Your task to perform on an android device: toggle notifications settings in the gmail app Image 0: 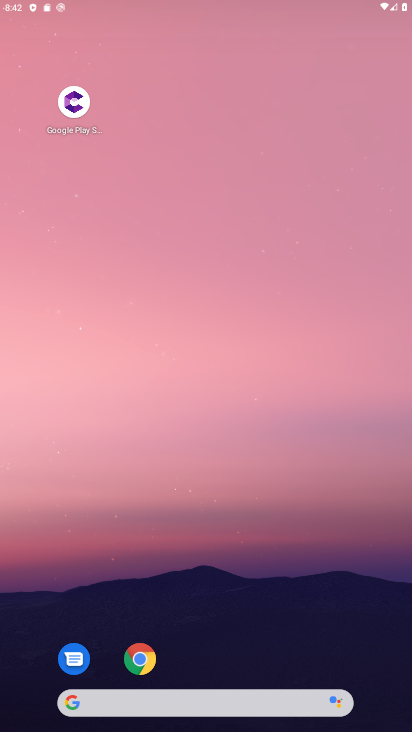
Step 0: drag from (244, 664) to (245, 199)
Your task to perform on an android device: toggle notifications settings in the gmail app Image 1: 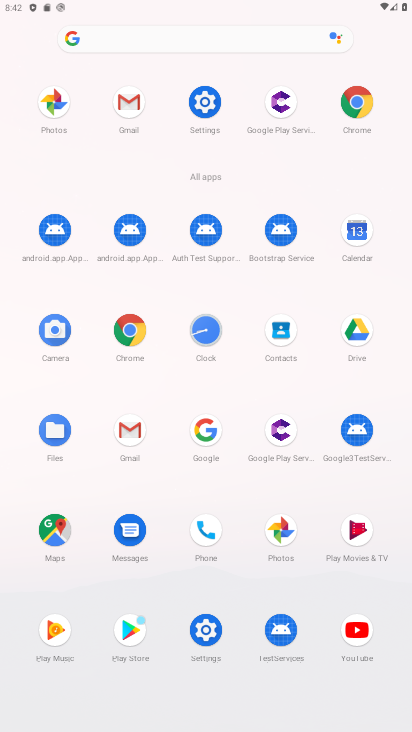
Step 1: click (127, 100)
Your task to perform on an android device: toggle notifications settings in the gmail app Image 2: 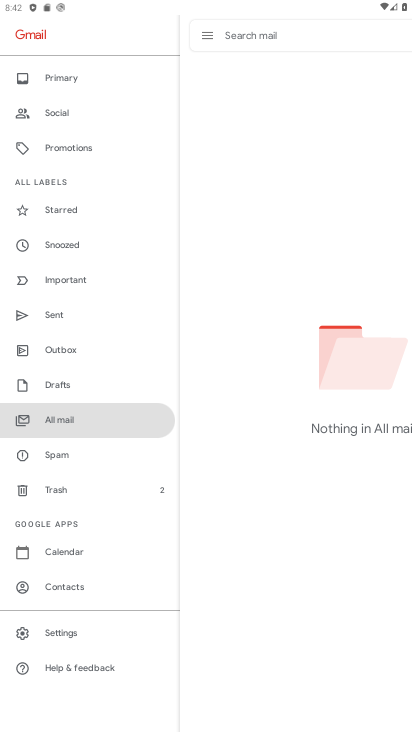
Step 2: click (61, 624)
Your task to perform on an android device: toggle notifications settings in the gmail app Image 3: 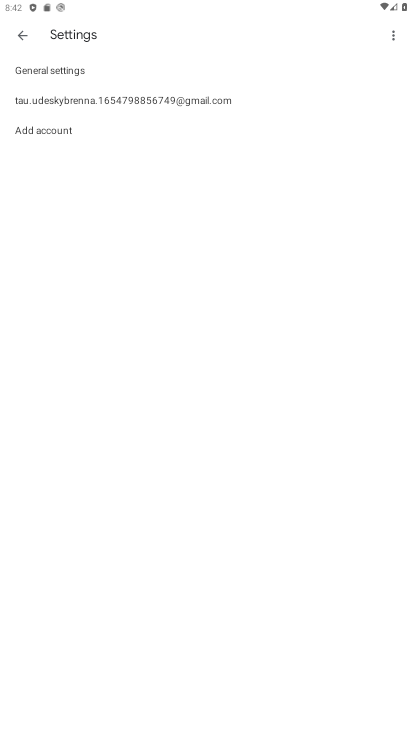
Step 3: click (69, 97)
Your task to perform on an android device: toggle notifications settings in the gmail app Image 4: 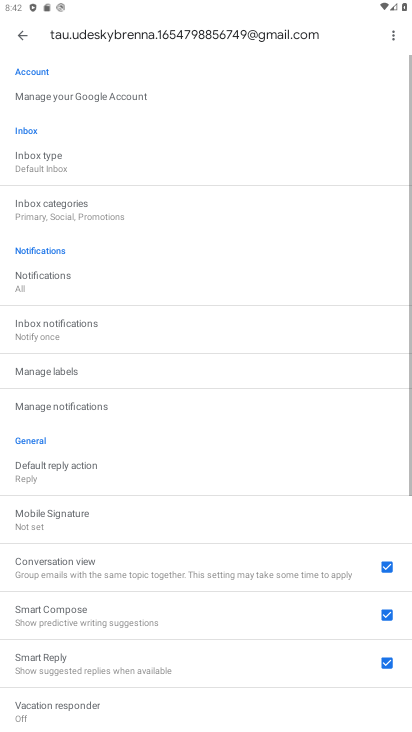
Step 4: click (55, 291)
Your task to perform on an android device: toggle notifications settings in the gmail app Image 5: 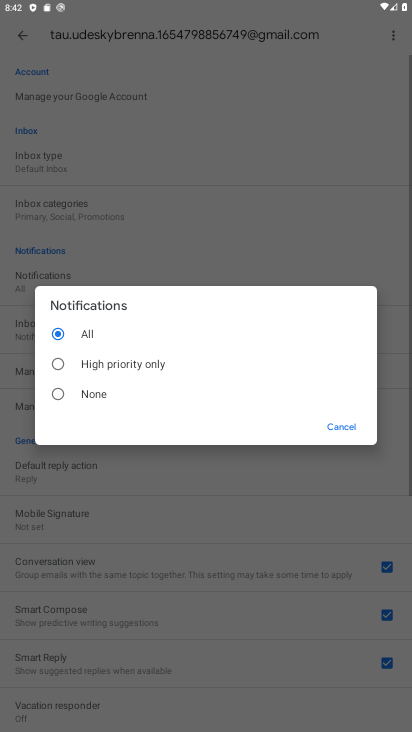
Step 5: click (83, 394)
Your task to perform on an android device: toggle notifications settings in the gmail app Image 6: 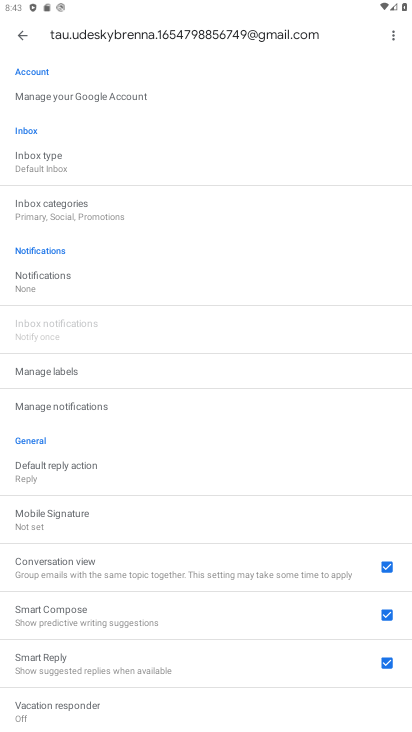
Step 6: task complete